Your task to perform on an android device: Go to Yahoo.com Image 0: 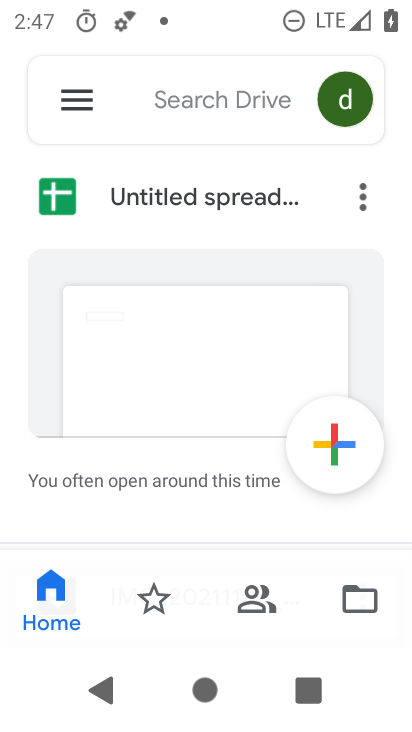
Step 0: press home button
Your task to perform on an android device: Go to Yahoo.com Image 1: 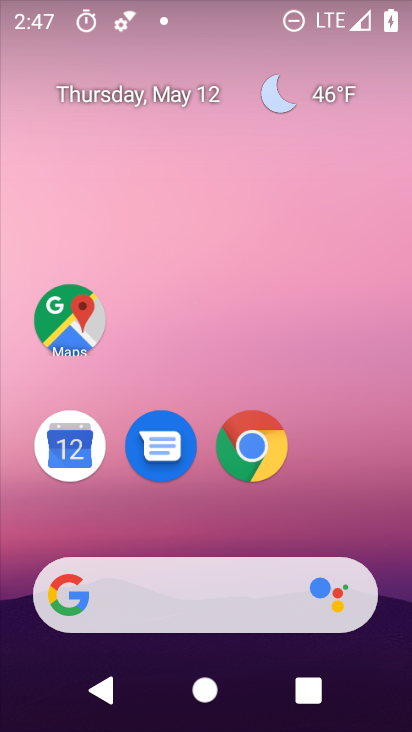
Step 1: drag from (192, 525) to (239, 212)
Your task to perform on an android device: Go to Yahoo.com Image 2: 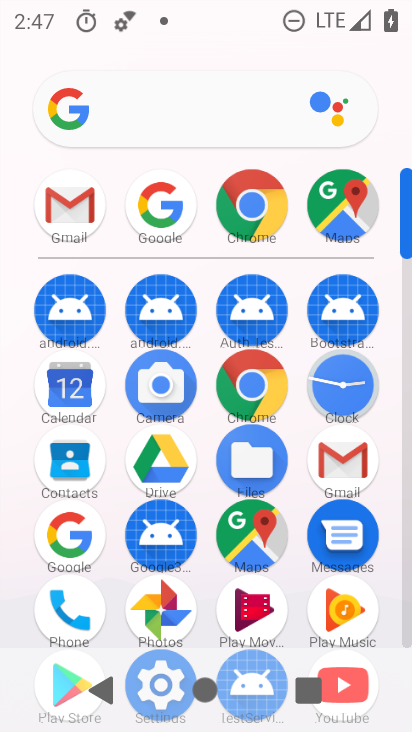
Step 2: click (80, 529)
Your task to perform on an android device: Go to Yahoo.com Image 3: 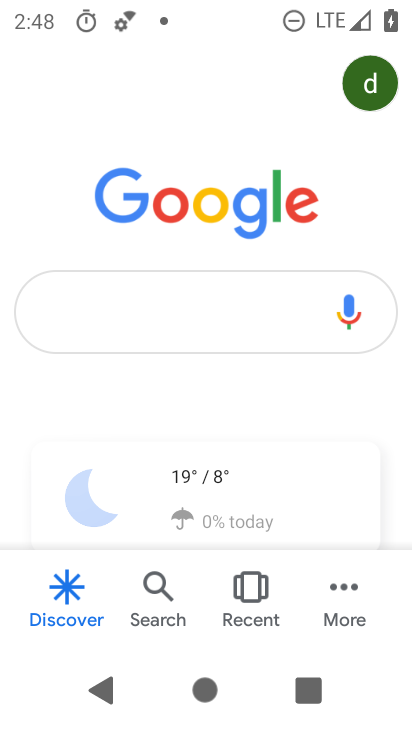
Step 3: click (229, 291)
Your task to perform on an android device: Go to Yahoo.com Image 4: 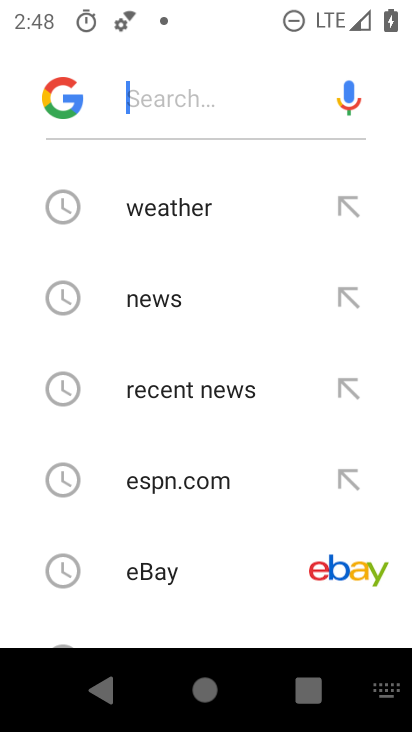
Step 4: type "Yahoo.com]"
Your task to perform on an android device: Go to Yahoo.com Image 5: 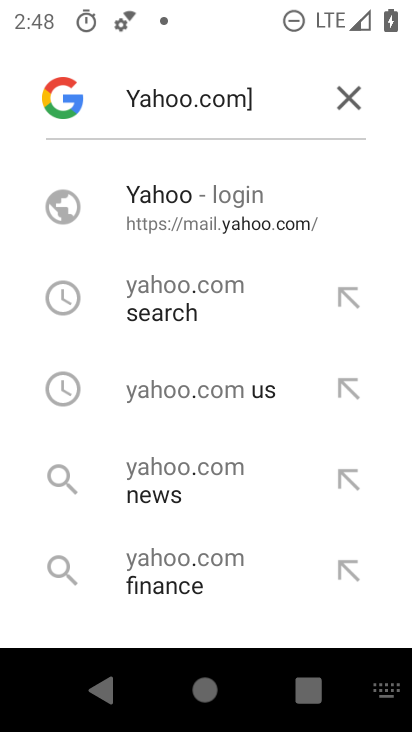
Step 5: click (201, 279)
Your task to perform on an android device: Go to Yahoo.com Image 6: 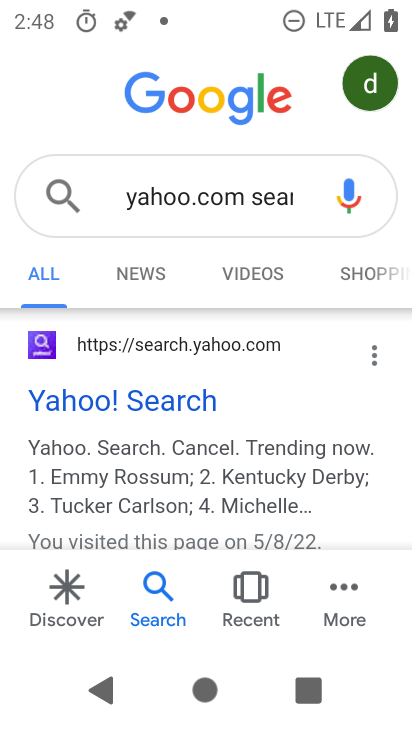
Step 6: click (165, 407)
Your task to perform on an android device: Go to Yahoo.com Image 7: 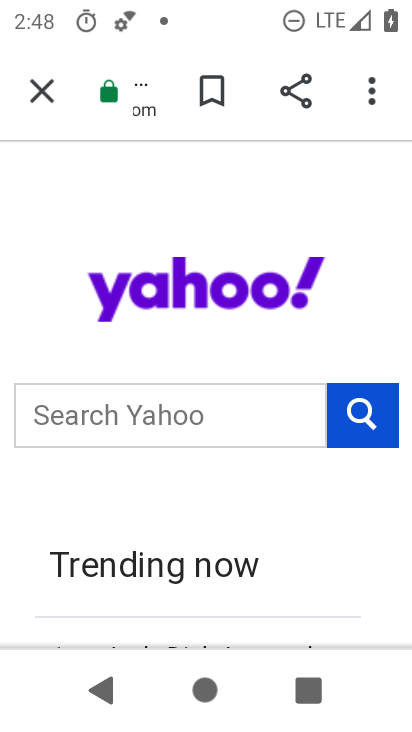
Step 7: task complete